Your task to perform on an android device: open chrome privacy settings Image 0: 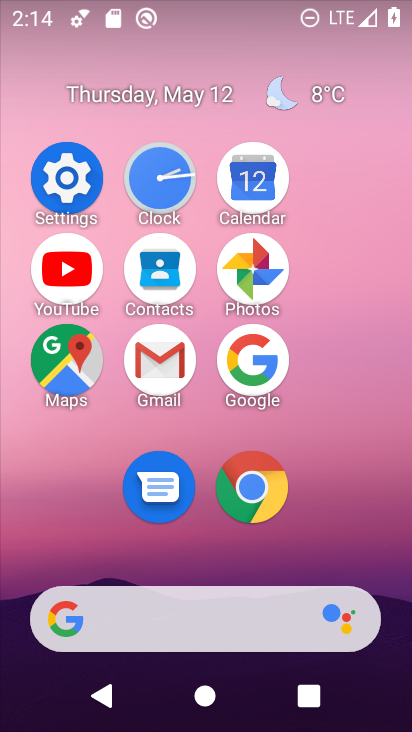
Step 0: click (237, 470)
Your task to perform on an android device: open chrome privacy settings Image 1: 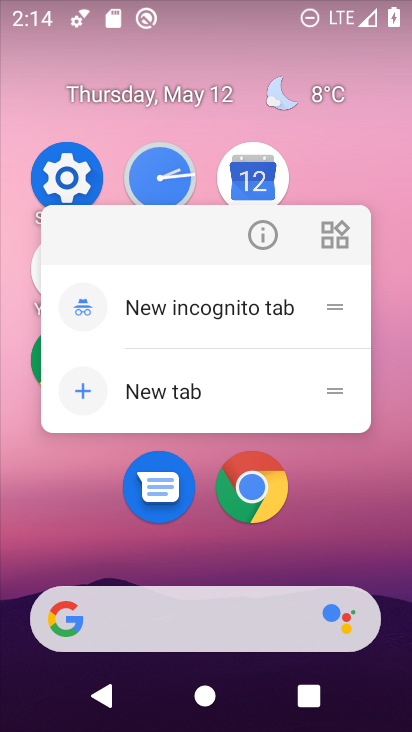
Step 1: click (254, 473)
Your task to perform on an android device: open chrome privacy settings Image 2: 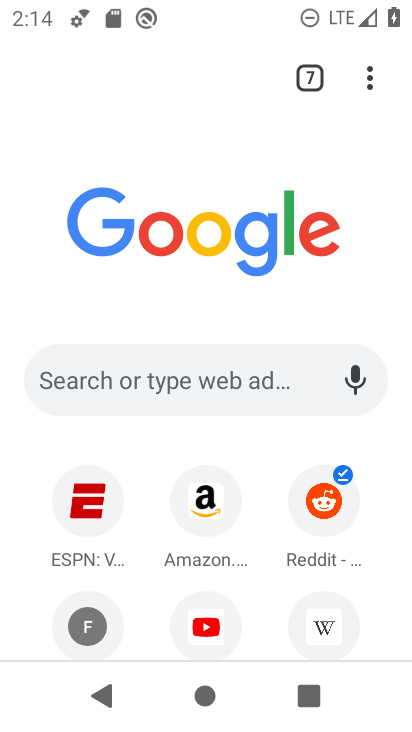
Step 2: click (364, 84)
Your task to perform on an android device: open chrome privacy settings Image 3: 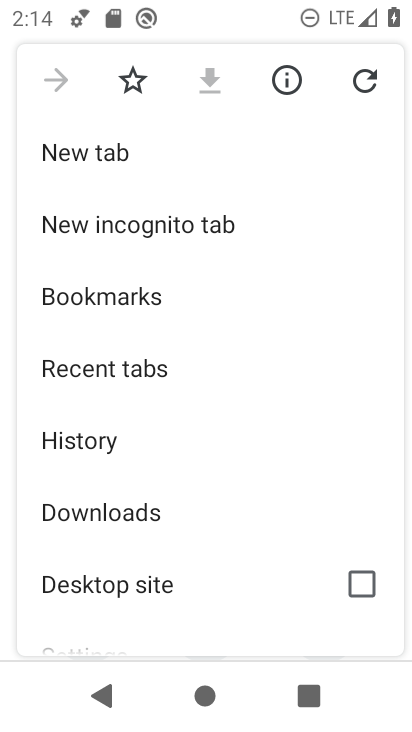
Step 3: drag from (206, 592) to (209, 248)
Your task to perform on an android device: open chrome privacy settings Image 4: 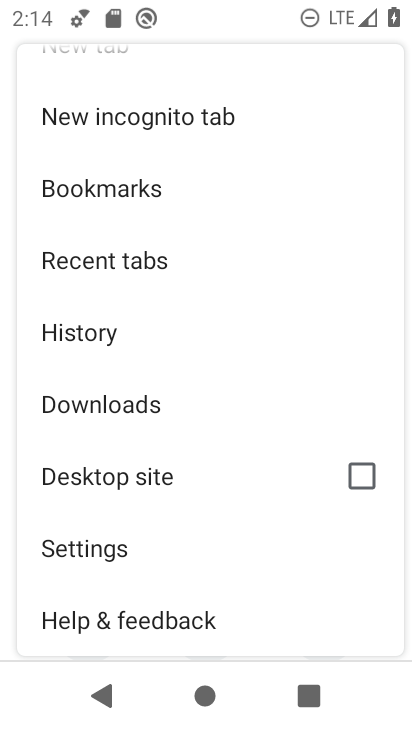
Step 4: click (207, 547)
Your task to perform on an android device: open chrome privacy settings Image 5: 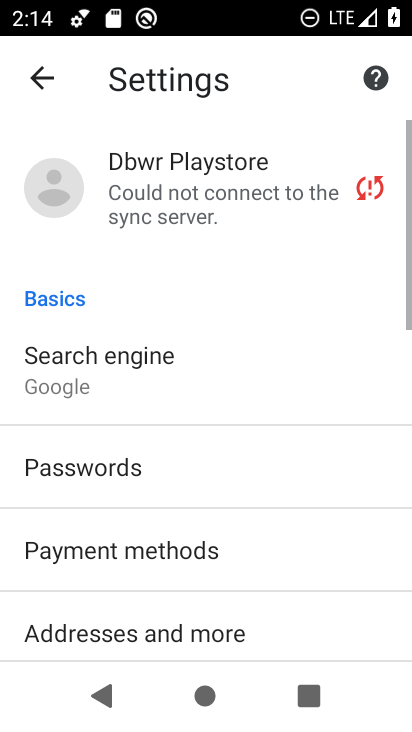
Step 5: drag from (206, 547) to (245, 161)
Your task to perform on an android device: open chrome privacy settings Image 6: 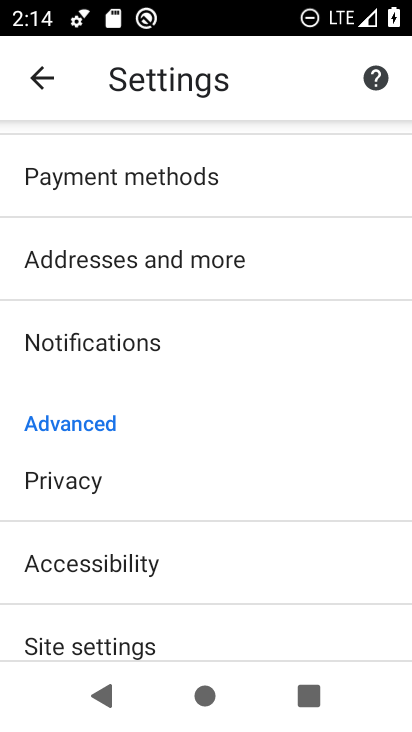
Step 6: click (190, 494)
Your task to perform on an android device: open chrome privacy settings Image 7: 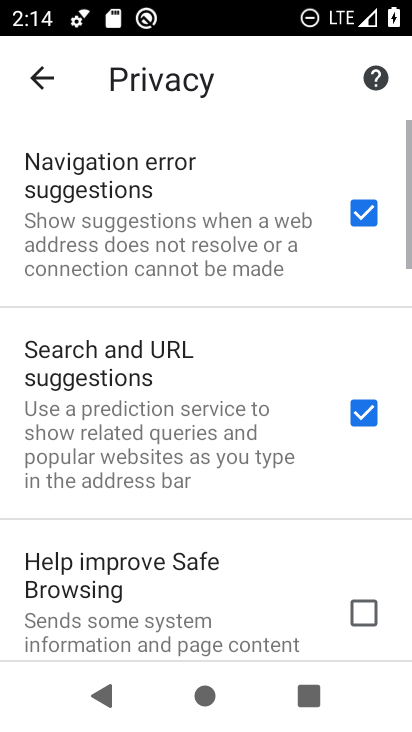
Step 7: task complete